Your task to perform on an android device: turn on priority inbox in the gmail app Image 0: 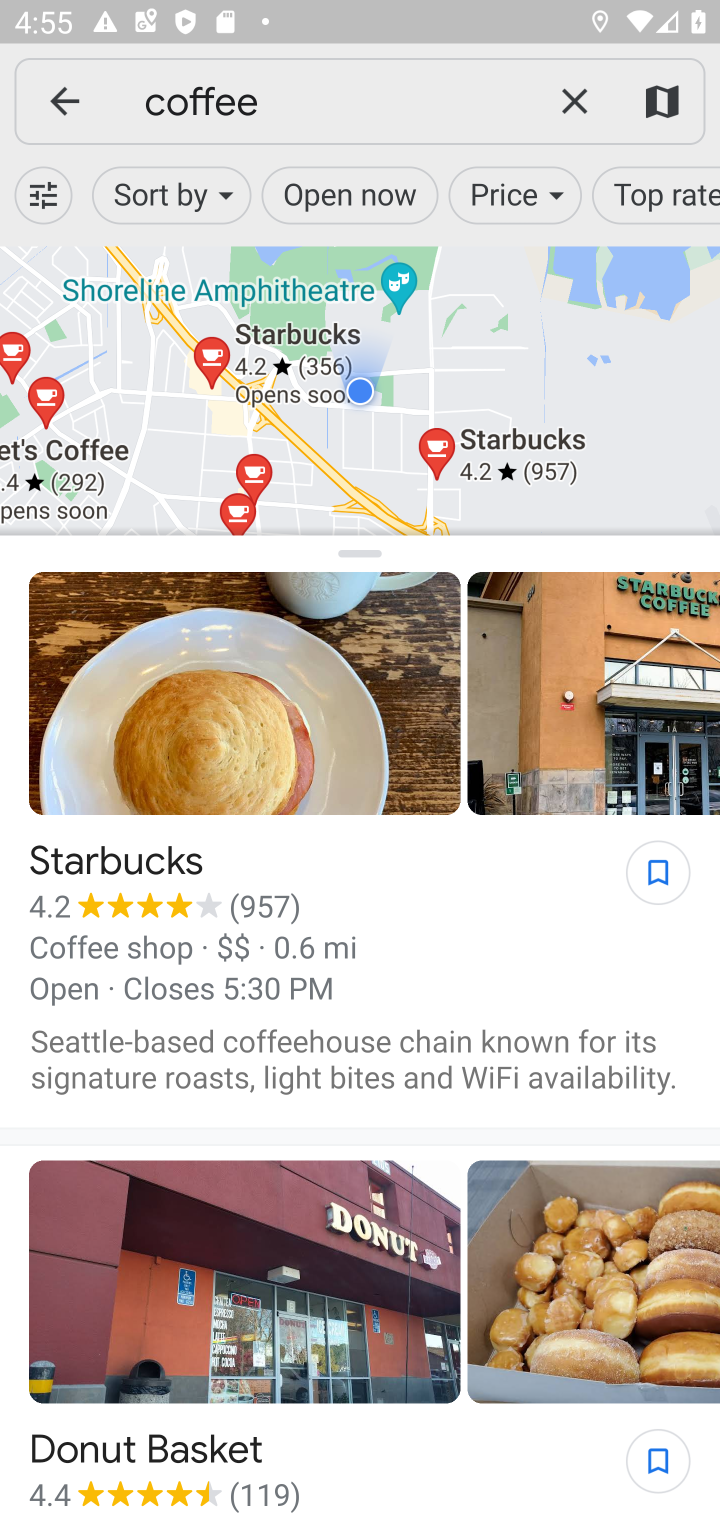
Step 0: task complete